Your task to perform on an android device: Open the stopwatch Image 0: 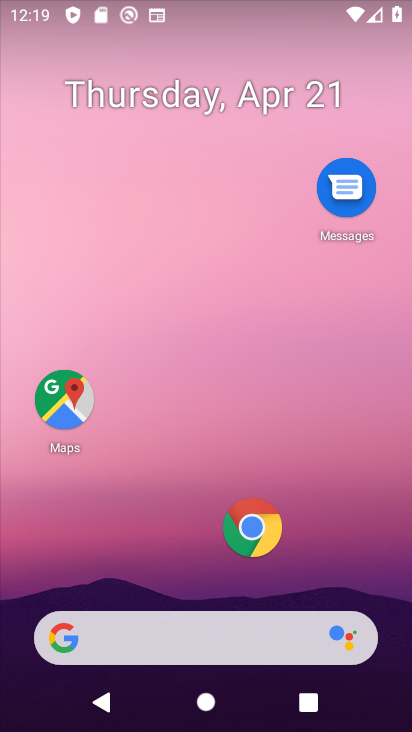
Step 0: drag from (351, 554) to (334, 79)
Your task to perform on an android device: Open the stopwatch Image 1: 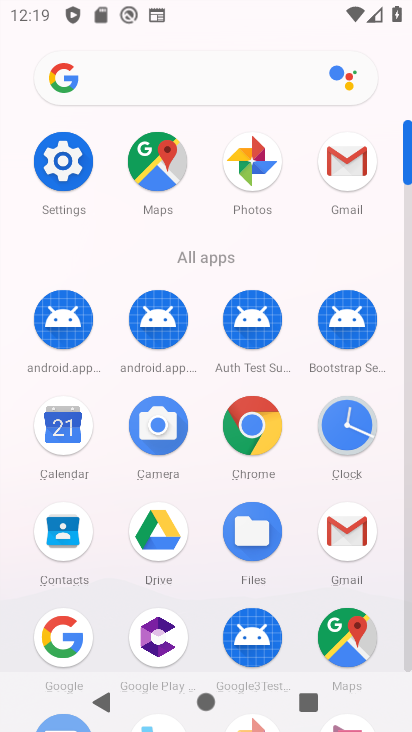
Step 1: click (332, 422)
Your task to perform on an android device: Open the stopwatch Image 2: 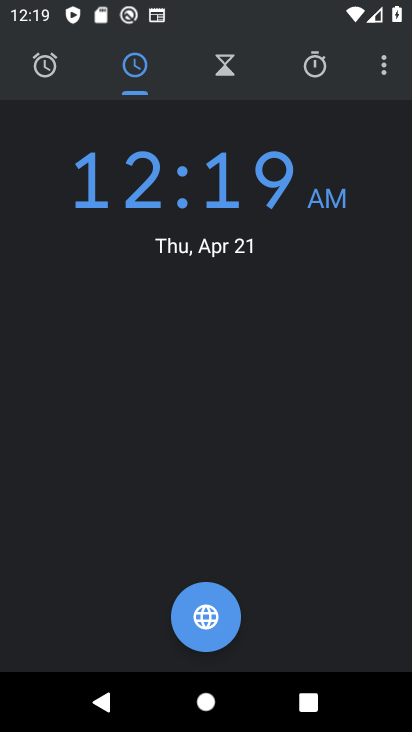
Step 2: click (316, 97)
Your task to perform on an android device: Open the stopwatch Image 3: 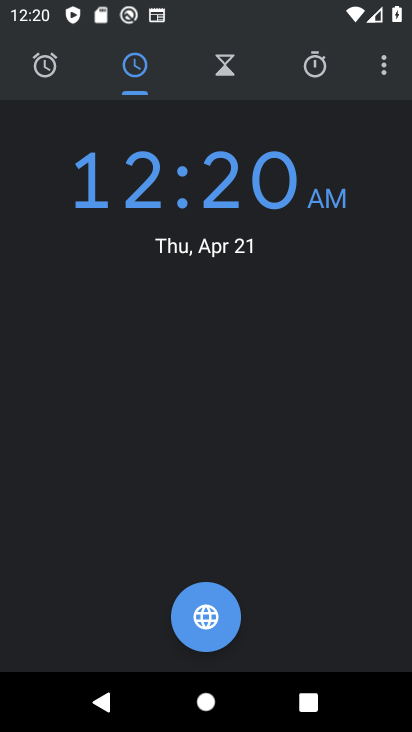
Step 3: click (336, 61)
Your task to perform on an android device: Open the stopwatch Image 4: 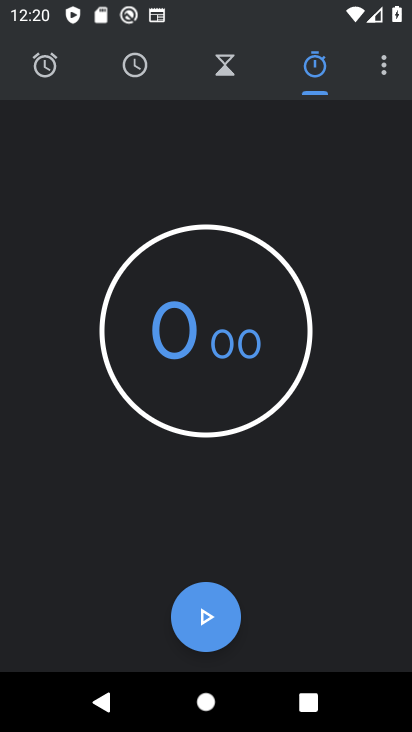
Step 4: task complete